Your task to perform on an android device: turn off wifi Image 0: 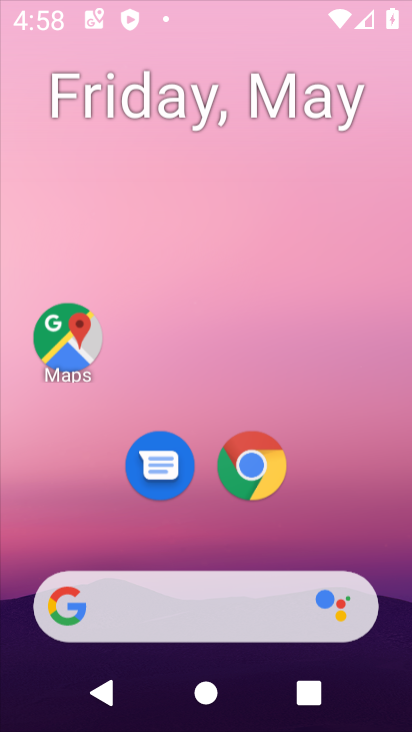
Step 0: click (285, 104)
Your task to perform on an android device: turn off wifi Image 1: 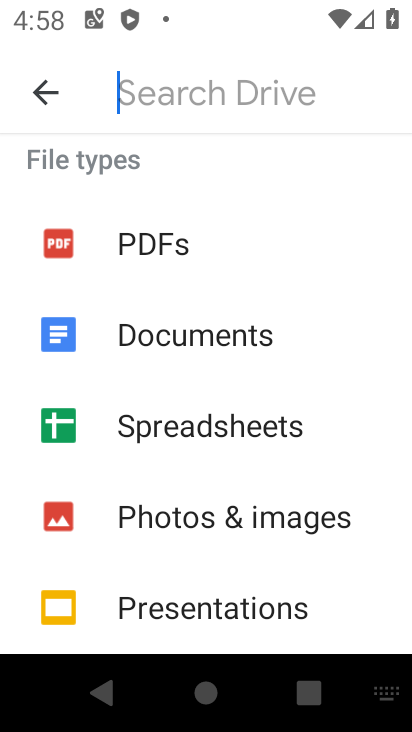
Step 1: press back button
Your task to perform on an android device: turn off wifi Image 2: 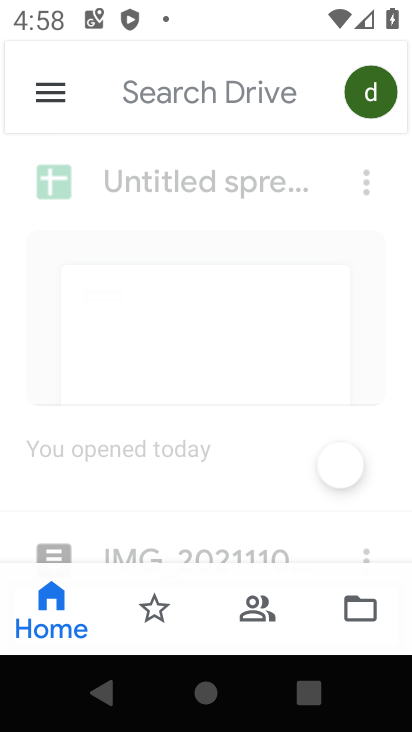
Step 2: press back button
Your task to perform on an android device: turn off wifi Image 3: 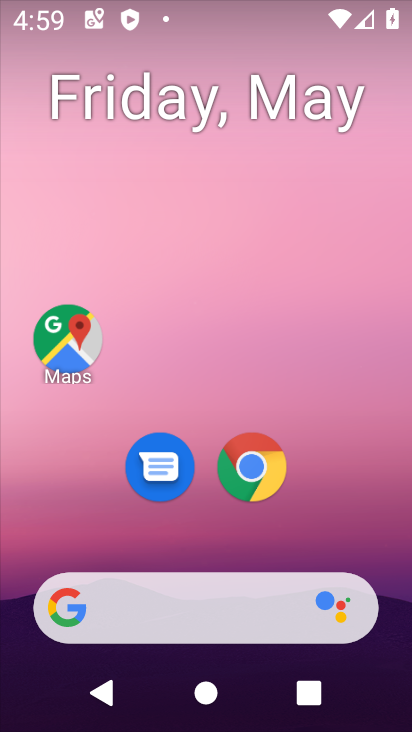
Step 3: drag from (337, 528) to (277, 58)
Your task to perform on an android device: turn off wifi Image 4: 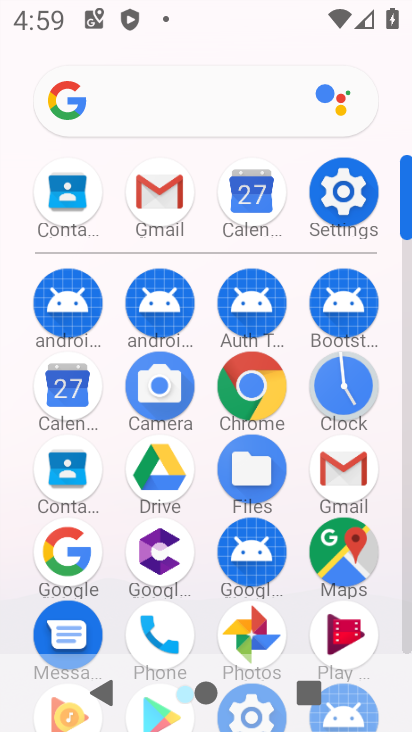
Step 4: click (328, 185)
Your task to perform on an android device: turn off wifi Image 5: 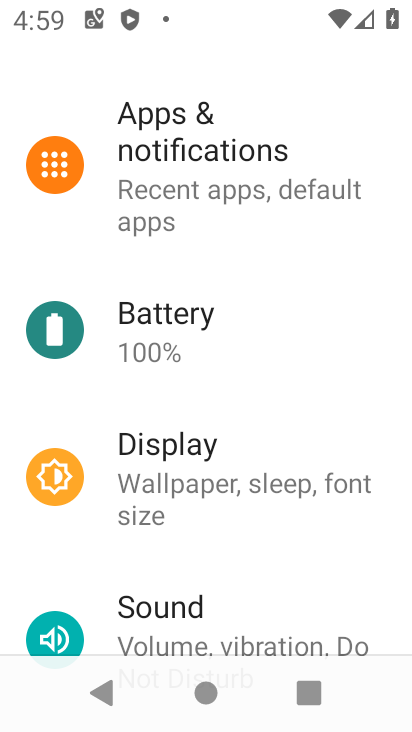
Step 5: drag from (194, 148) to (261, 552)
Your task to perform on an android device: turn off wifi Image 6: 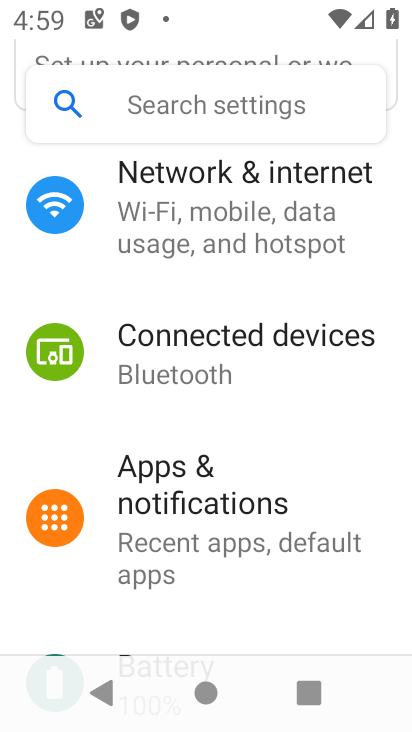
Step 6: click (203, 226)
Your task to perform on an android device: turn off wifi Image 7: 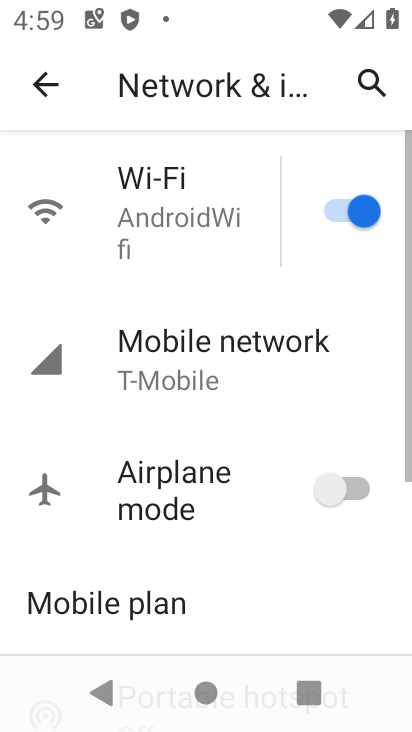
Step 7: click (372, 212)
Your task to perform on an android device: turn off wifi Image 8: 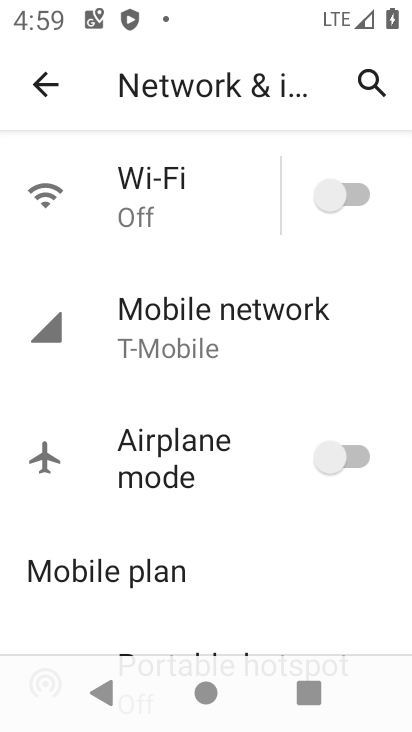
Step 8: task complete